Your task to perform on an android device: Open the calendar and show me this week's events? Image 0: 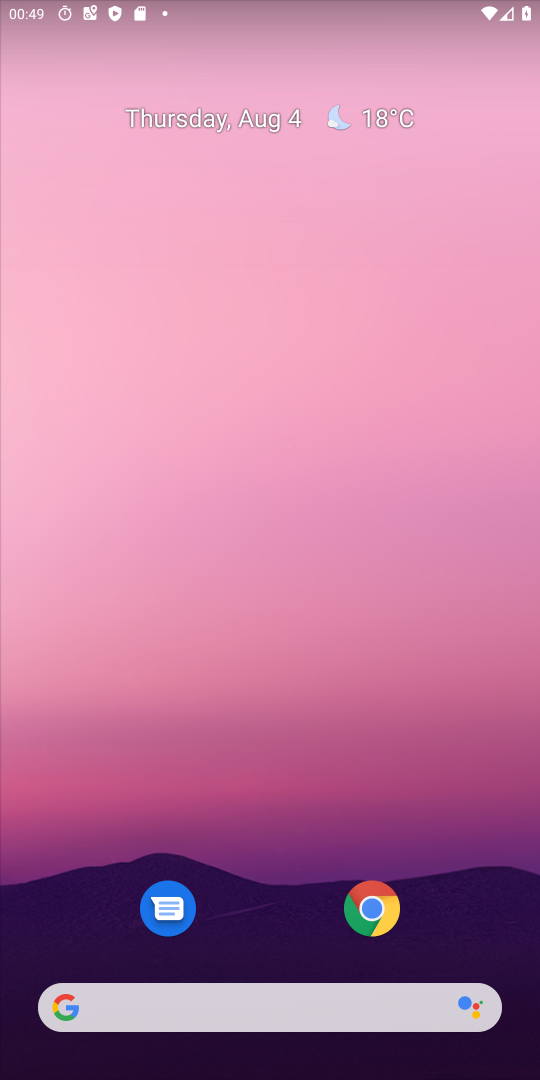
Step 0: press home button
Your task to perform on an android device: Open the calendar and show me this week's events? Image 1: 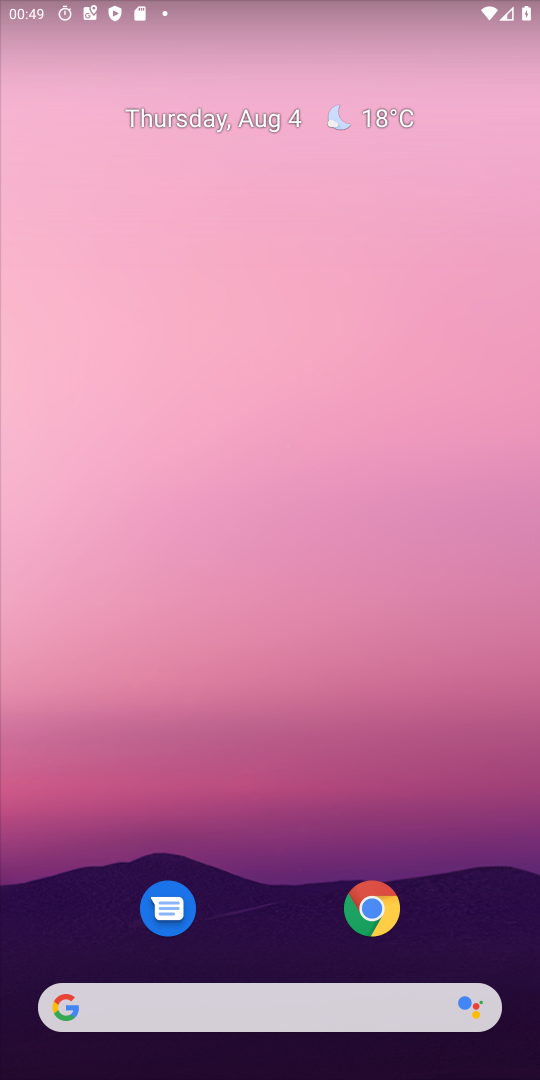
Step 1: drag from (320, 989) to (352, 305)
Your task to perform on an android device: Open the calendar and show me this week's events? Image 2: 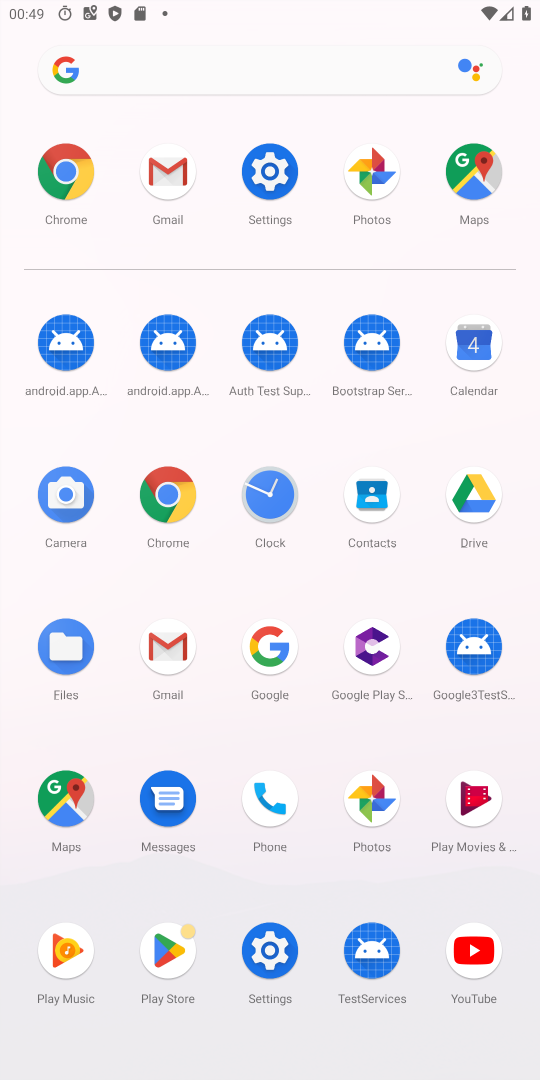
Step 2: click (479, 353)
Your task to perform on an android device: Open the calendar and show me this week's events? Image 3: 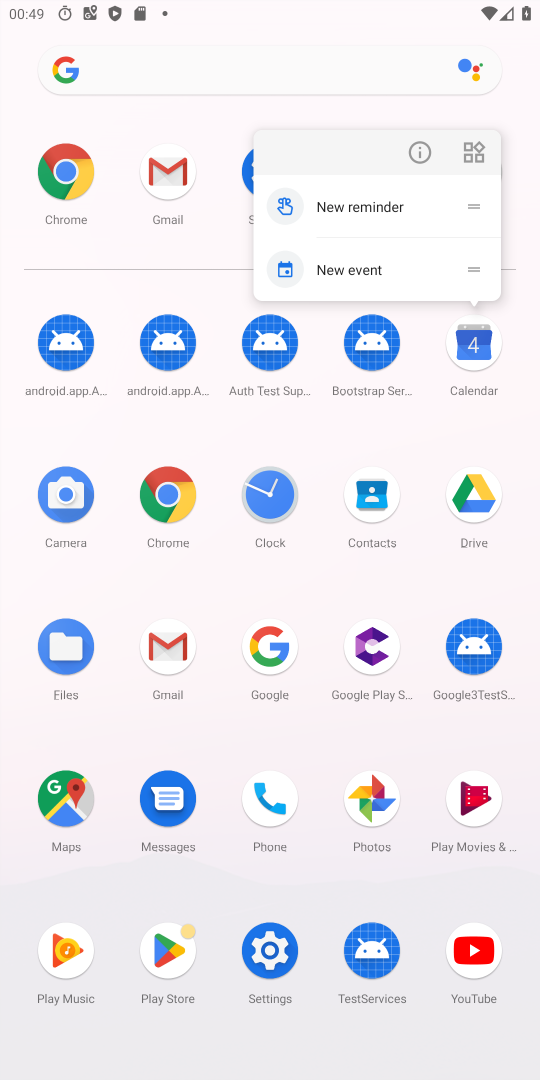
Step 3: click (468, 369)
Your task to perform on an android device: Open the calendar and show me this week's events? Image 4: 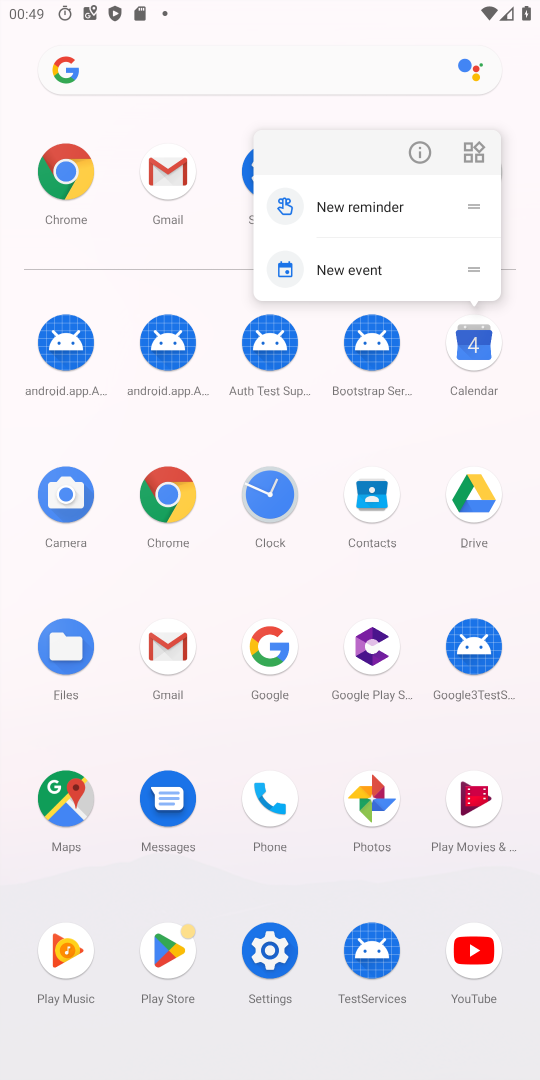
Step 4: click (470, 367)
Your task to perform on an android device: Open the calendar and show me this week's events? Image 5: 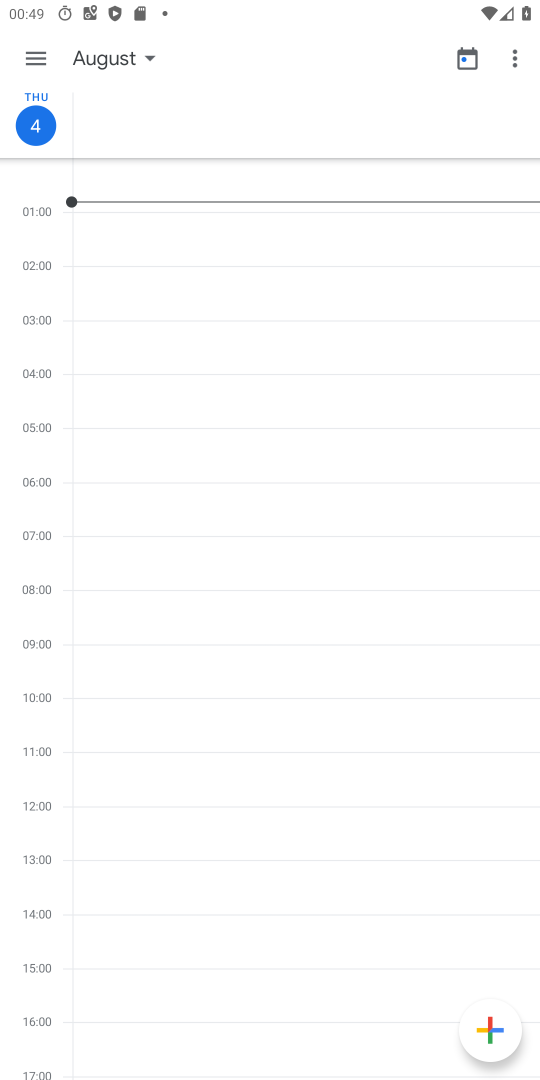
Step 5: click (30, 71)
Your task to perform on an android device: Open the calendar and show me this week's events? Image 6: 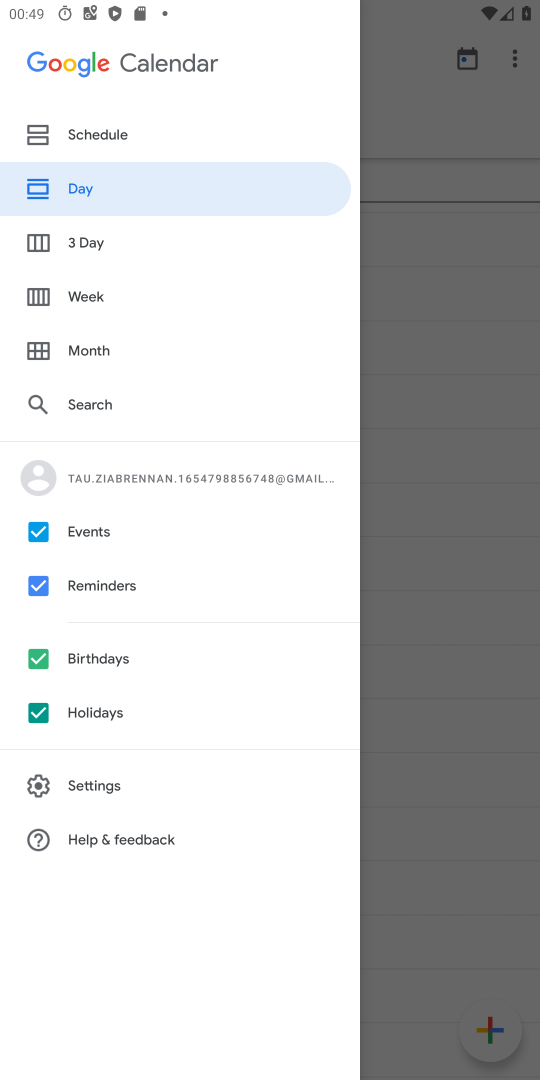
Step 6: click (76, 351)
Your task to perform on an android device: Open the calendar and show me this week's events? Image 7: 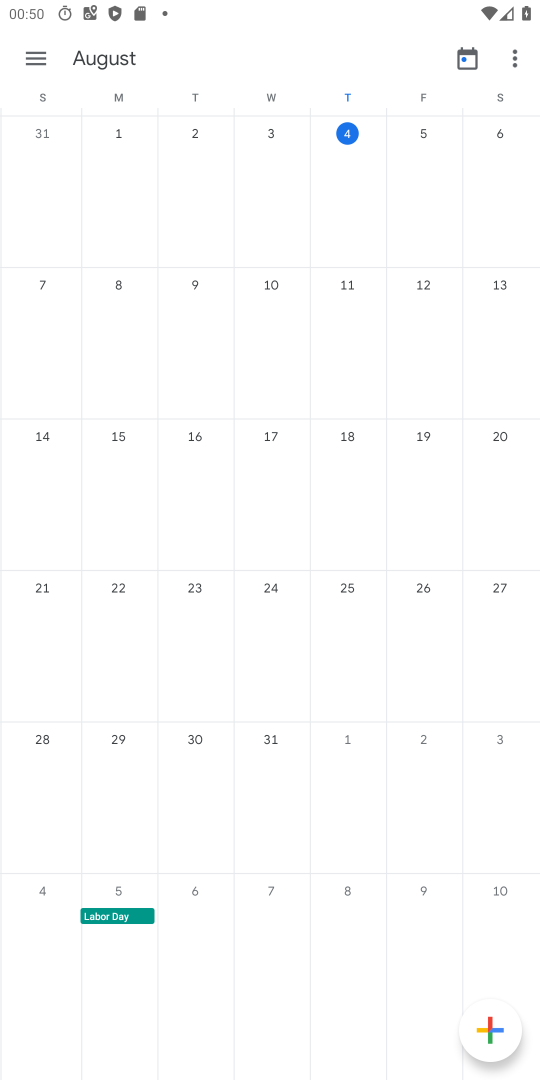
Step 7: click (345, 179)
Your task to perform on an android device: Open the calendar and show me this week's events? Image 8: 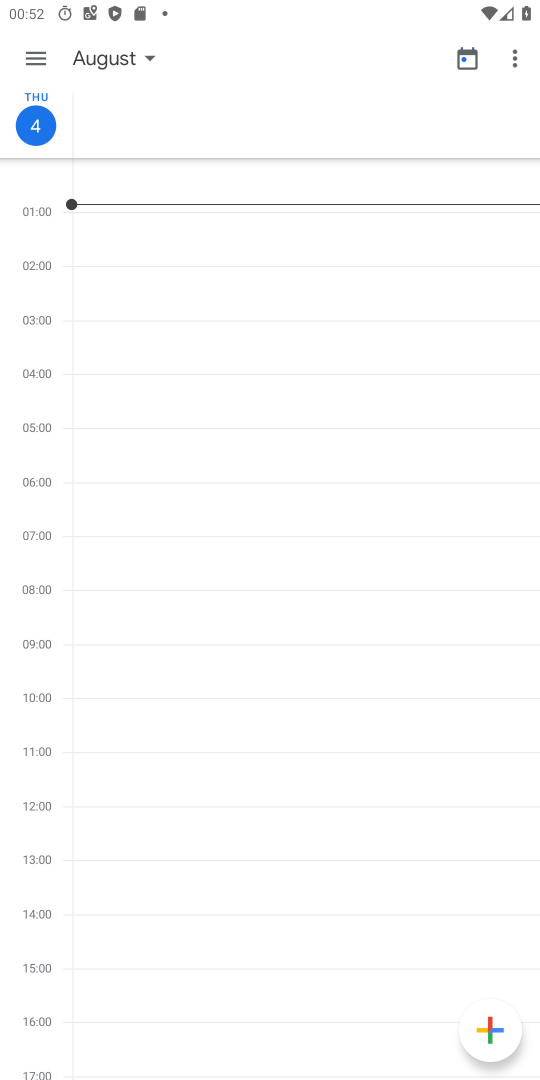
Step 8: task complete